Your task to perform on an android device: Open the web browser Image 0: 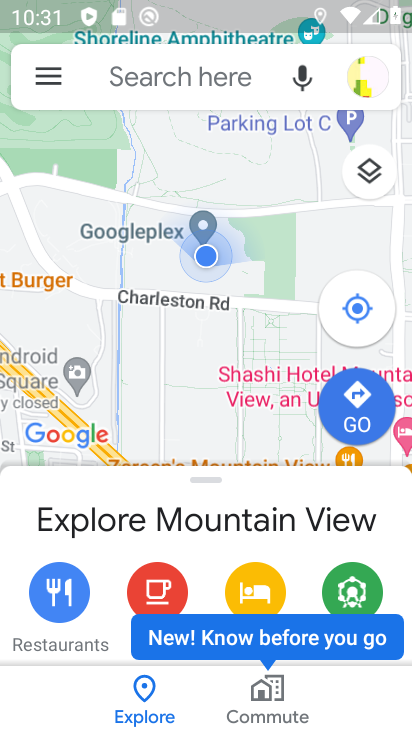
Step 0: press home button
Your task to perform on an android device: Open the web browser Image 1: 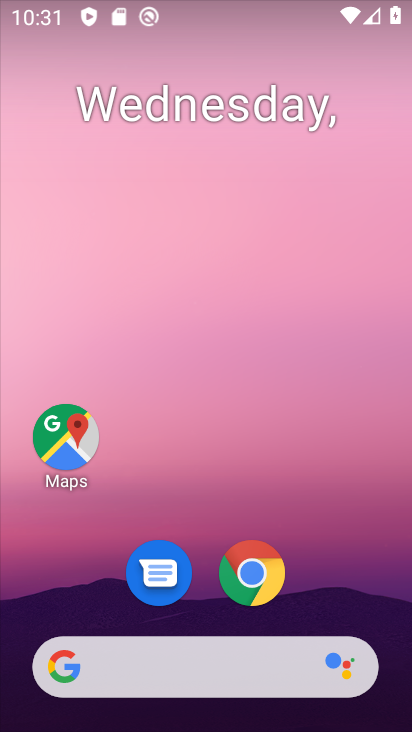
Step 1: click (242, 589)
Your task to perform on an android device: Open the web browser Image 2: 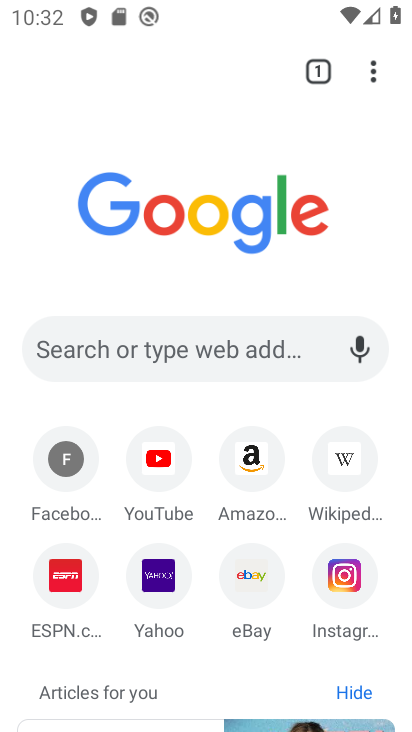
Step 2: task complete